Your task to perform on an android device: check google app version Image 0: 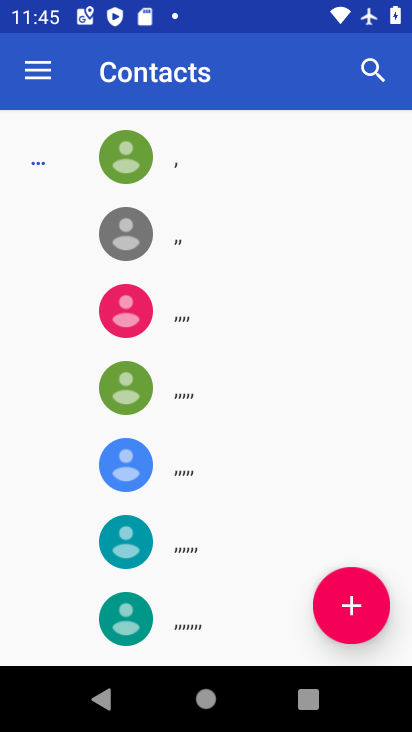
Step 0: press home button
Your task to perform on an android device: check google app version Image 1: 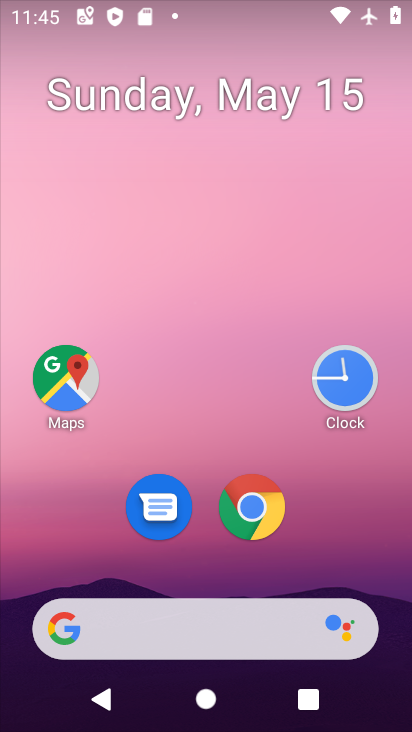
Step 1: drag from (296, 540) to (326, 85)
Your task to perform on an android device: check google app version Image 2: 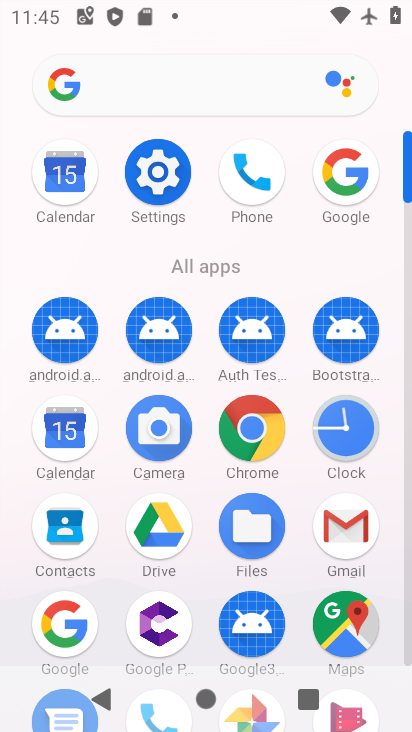
Step 2: click (75, 622)
Your task to perform on an android device: check google app version Image 3: 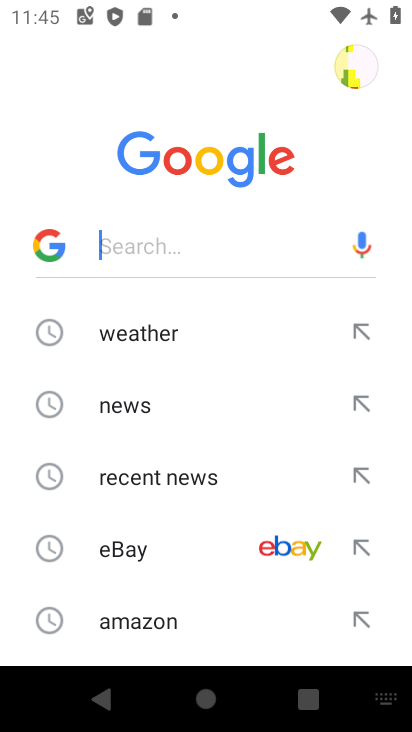
Step 3: press back button
Your task to perform on an android device: check google app version Image 4: 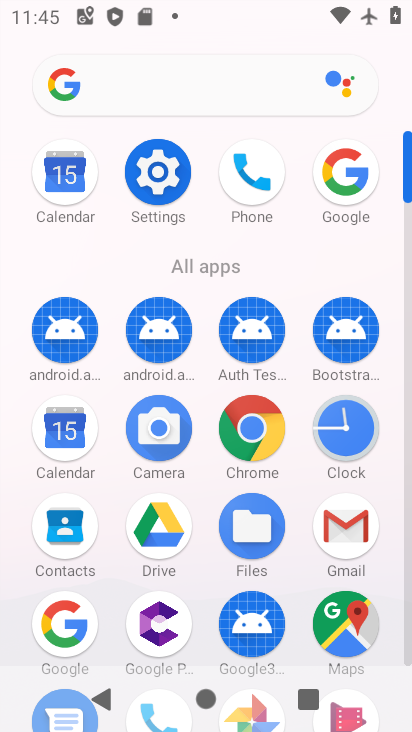
Step 4: click (62, 631)
Your task to perform on an android device: check google app version Image 5: 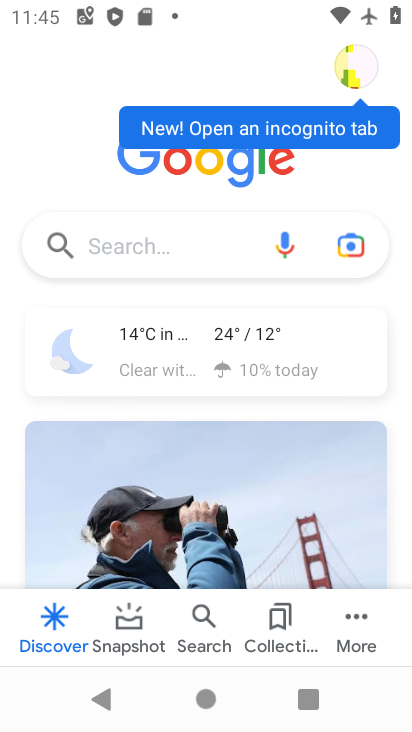
Step 5: click (351, 634)
Your task to perform on an android device: check google app version Image 6: 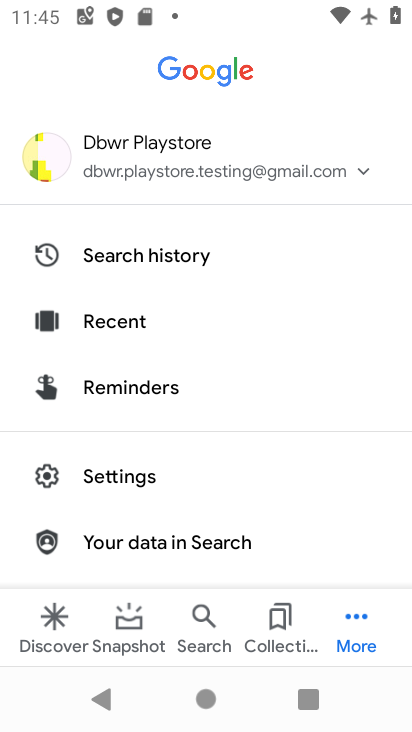
Step 6: click (164, 490)
Your task to perform on an android device: check google app version Image 7: 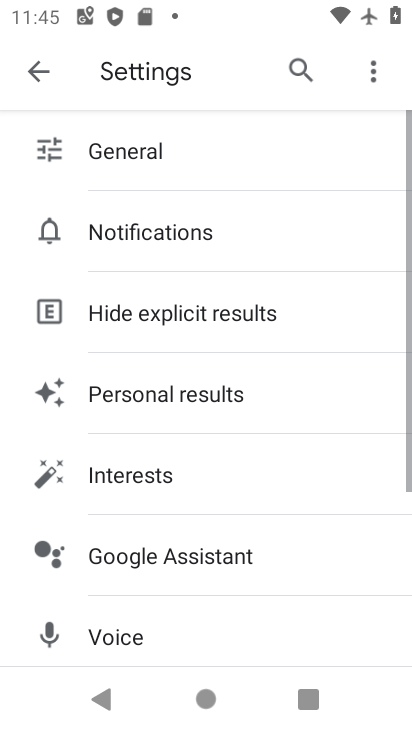
Step 7: drag from (214, 528) to (277, 118)
Your task to perform on an android device: check google app version Image 8: 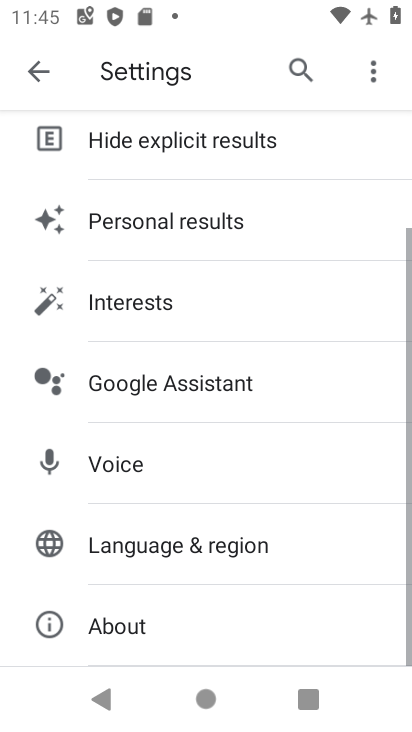
Step 8: click (197, 618)
Your task to perform on an android device: check google app version Image 9: 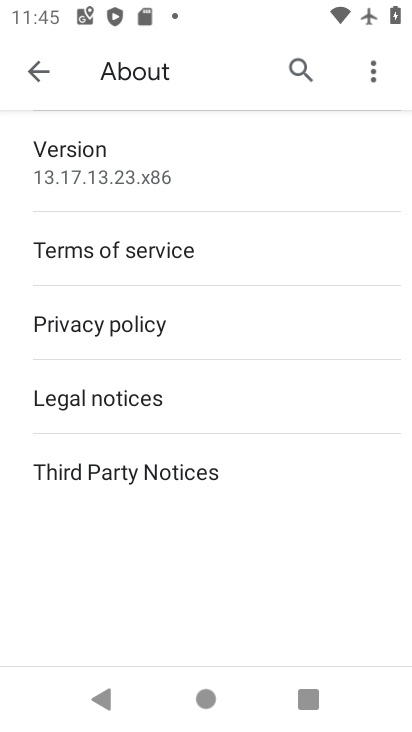
Step 9: task complete